Your task to perform on an android device: Show me popular videos on Youtube Image 0: 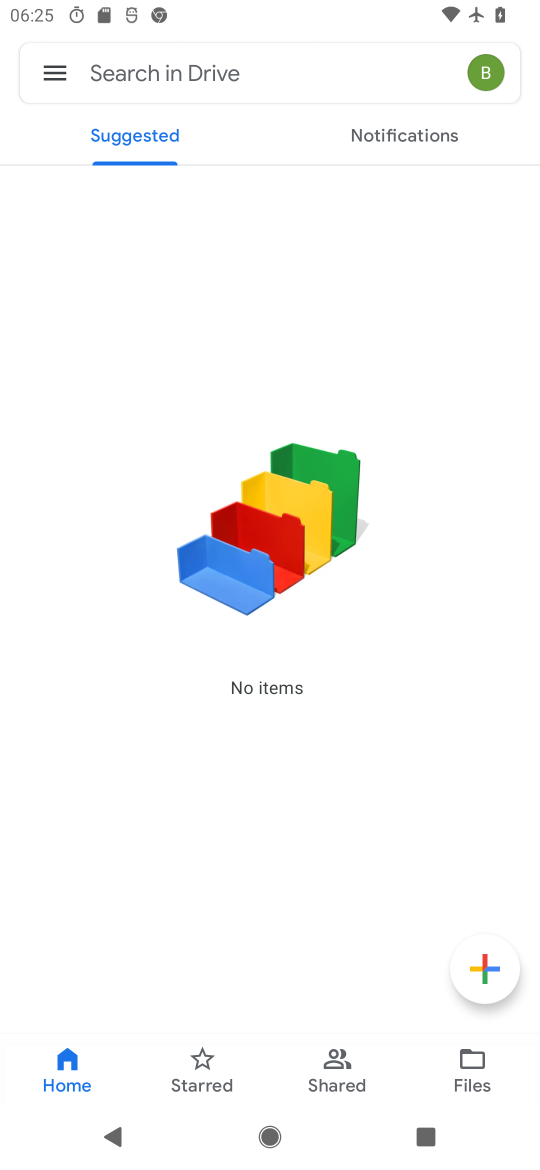
Step 0: press home button
Your task to perform on an android device: Show me popular videos on Youtube Image 1: 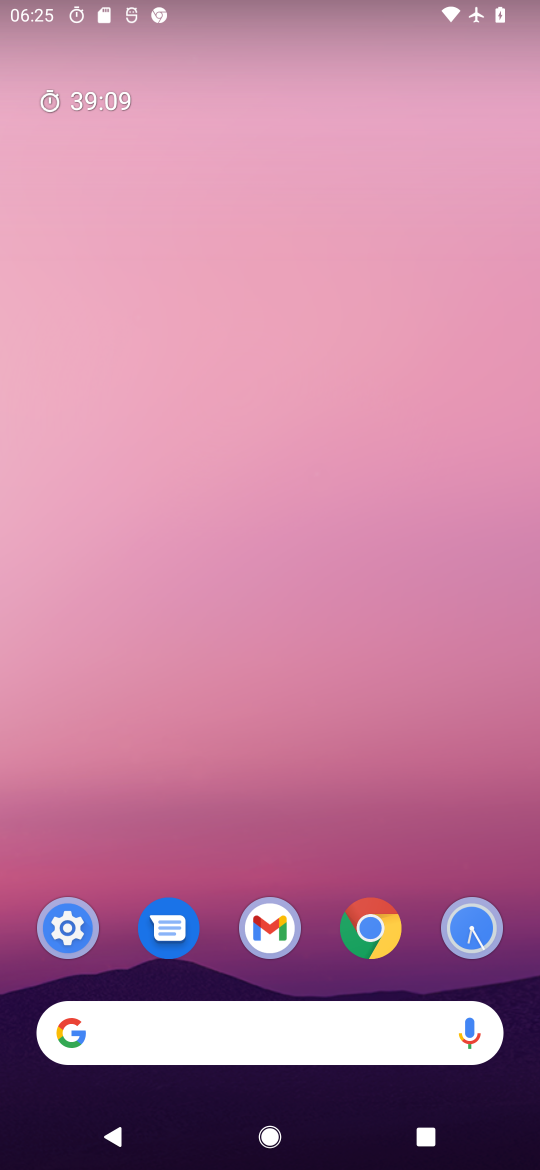
Step 1: drag from (218, 916) to (216, 202)
Your task to perform on an android device: Show me popular videos on Youtube Image 2: 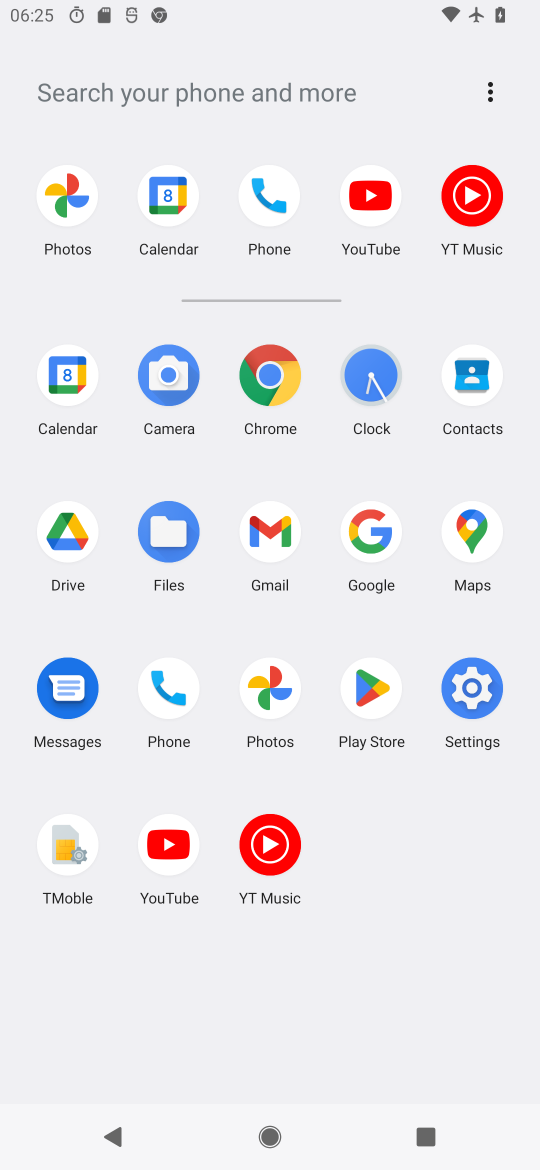
Step 2: click (167, 862)
Your task to perform on an android device: Show me popular videos on Youtube Image 3: 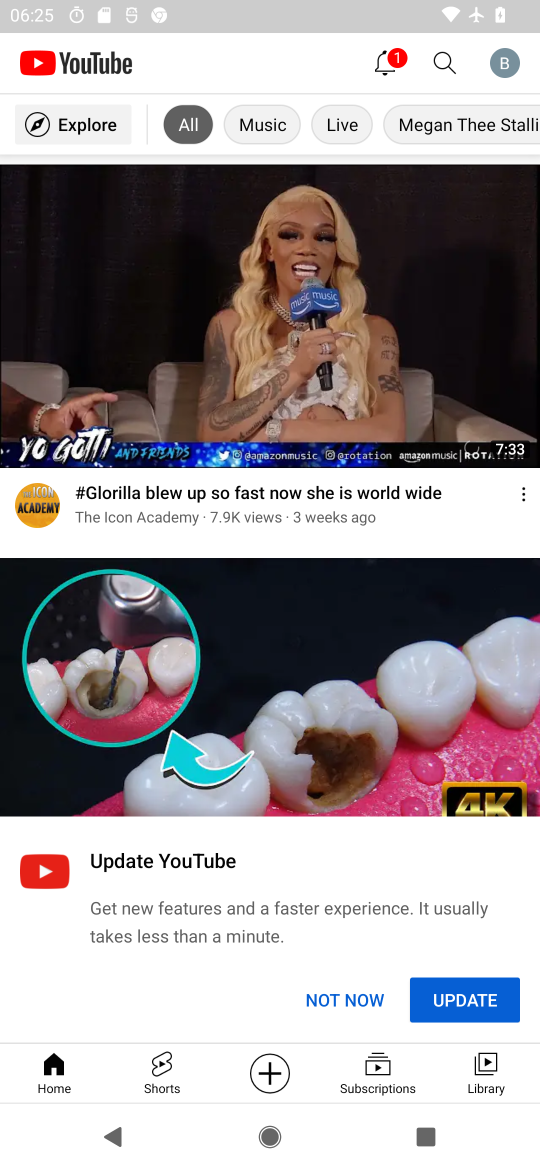
Step 3: click (53, 115)
Your task to perform on an android device: Show me popular videos on Youtube Image 4: 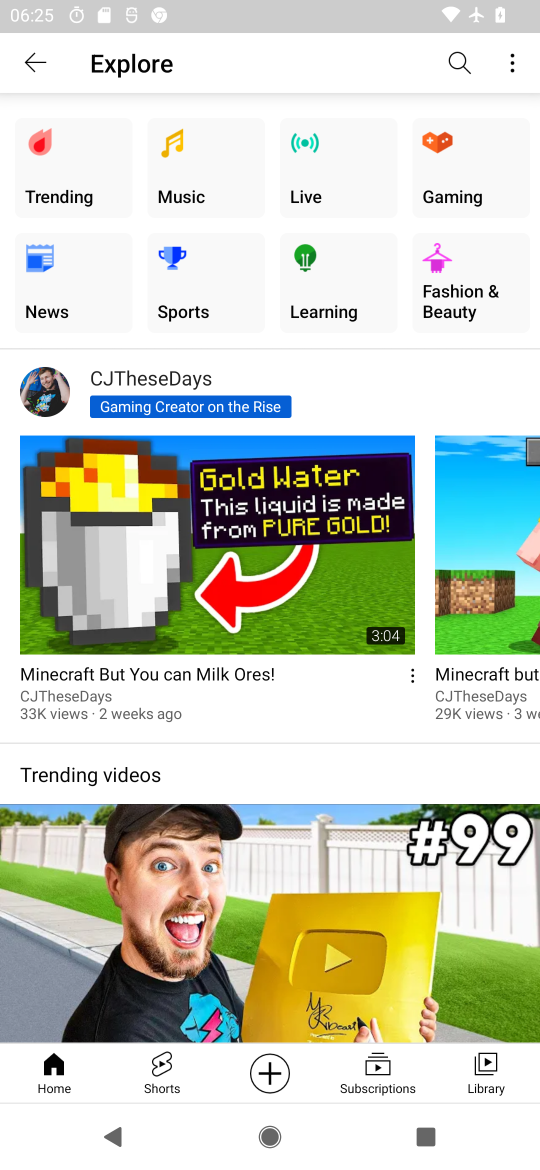
Step 4: click (41, 146)
Your task to perform on an android device: Show me popular videos on Youtube Image 5: 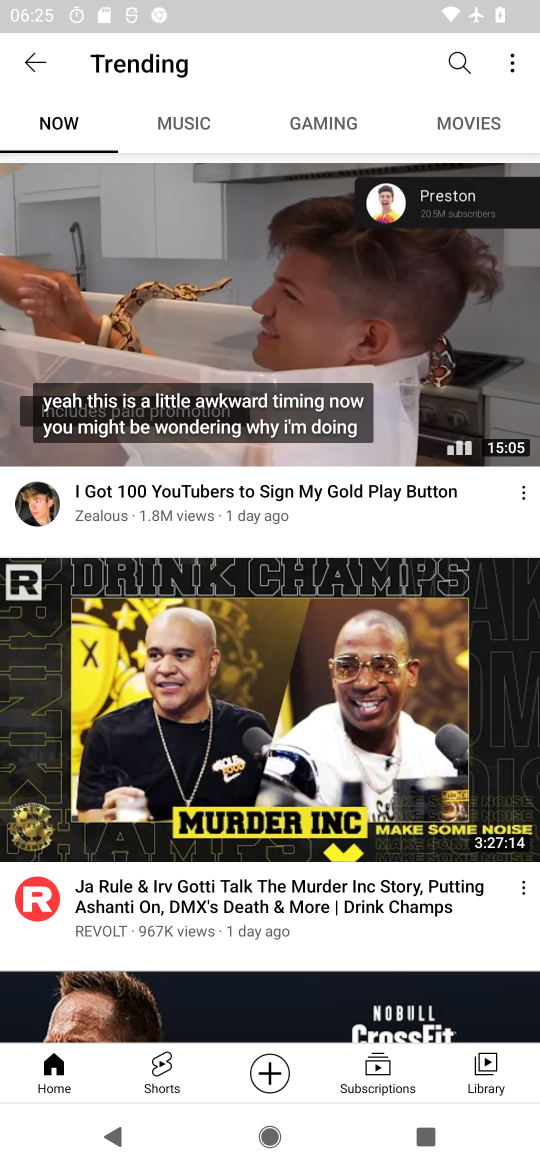
Step 5: task complete